Your task to perform on an android device: turn on translation in the chrome app Image 0: 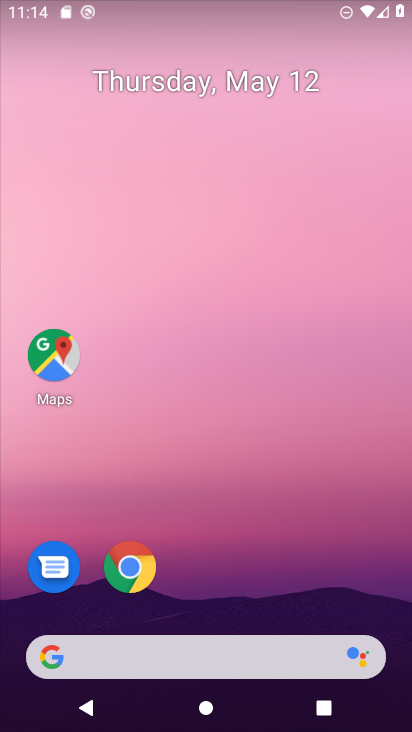
Step 0: drag from (250, 586) to (251, 343)
Your task to perform on an android device: turn on translation in the chrome app Image 1: 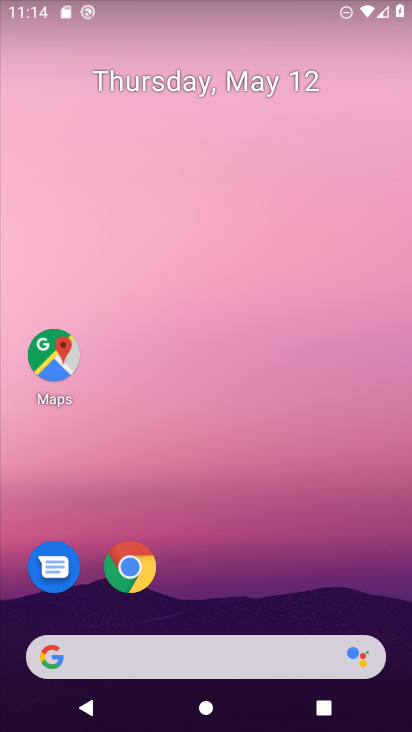
Step 1: drag from (204, 592) to (206, 310)
Your task to perform on an android device: turn on translation in the chrome app Image 2: 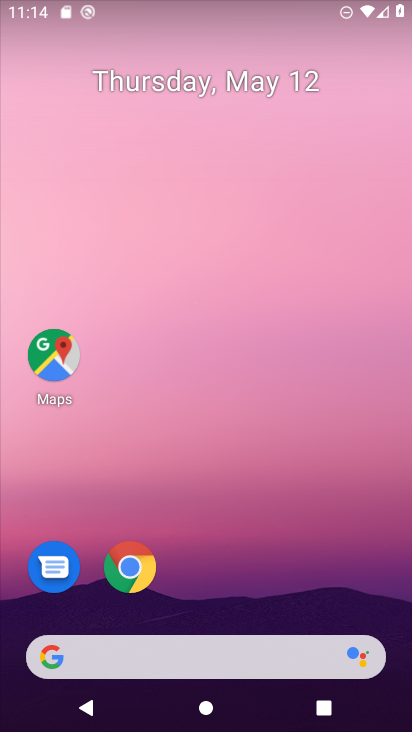
Step 2: drag from (261, 565) to (314, 210)
Your task to perform on an android device: turn on translation in the chrome app Image 3: 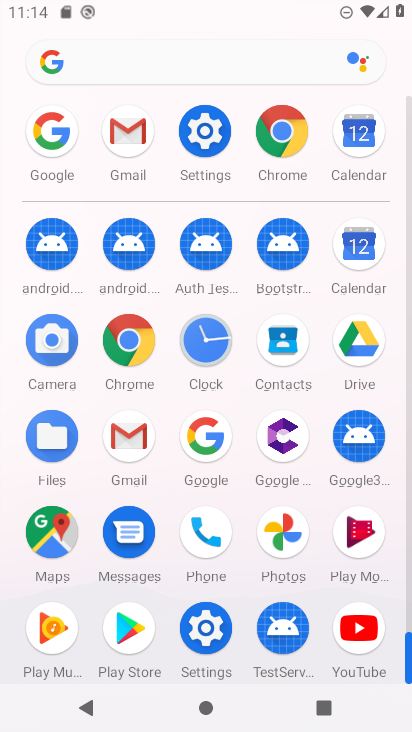
Step 3: click (288, 156)
Your task to perform on an android device: turn on translation in the chrome app Image 4: 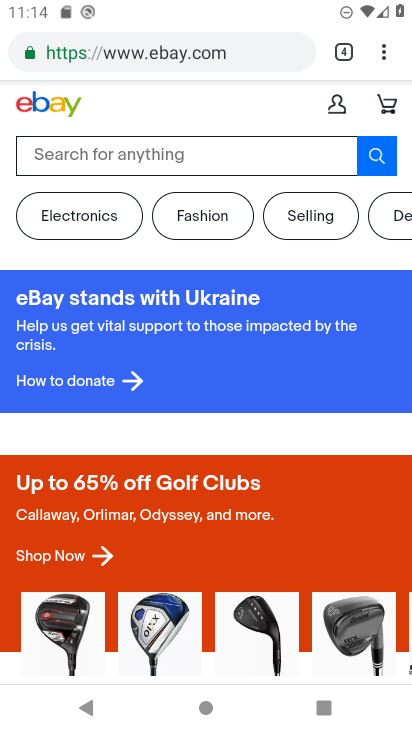
Step 4: click (390, 59)
Your task to perform on an android device: turn on translation in the chrome app Image 5: 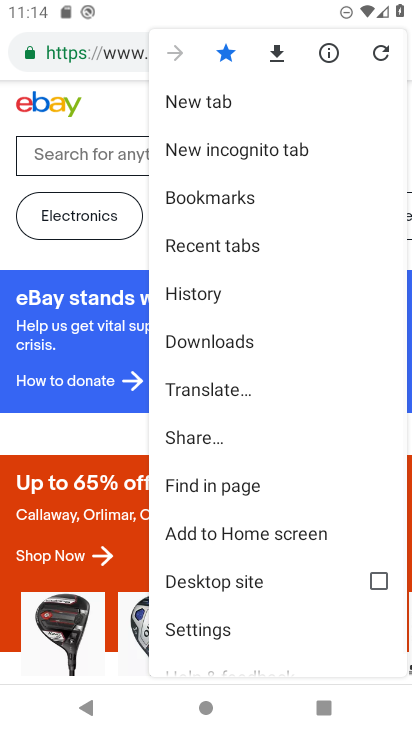
Step 5: click (266, 384)
Your task to perform on an android device: turn on translation in the chrome app Image 6: 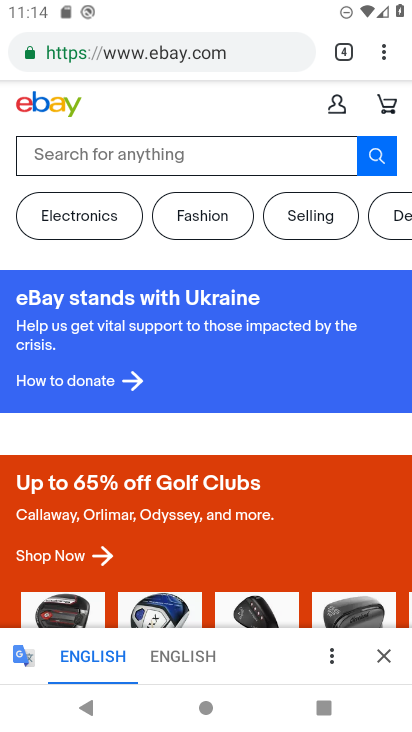
Step 6: click (330, 656)
Your task to perform on an android device: turn on translation in the chrome app Image 7: 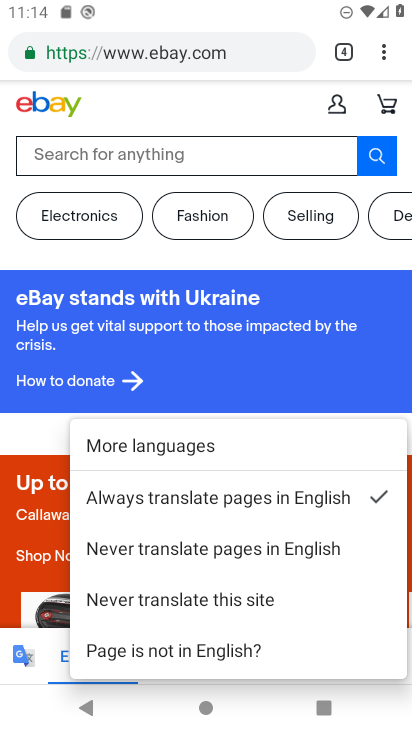
Step 7: task complete